Your task to perform on an android device: Go to privacy settings Image 0: 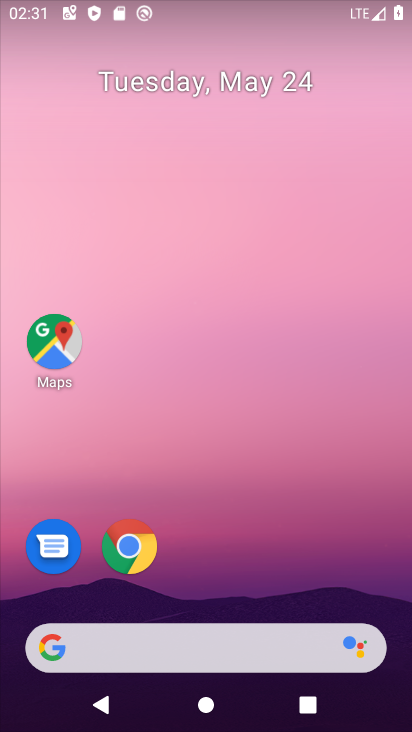
Step 0: drag from (180, 568) to (275, 185)
Your task to perform on an android device: Go to privacy settings Image 1: 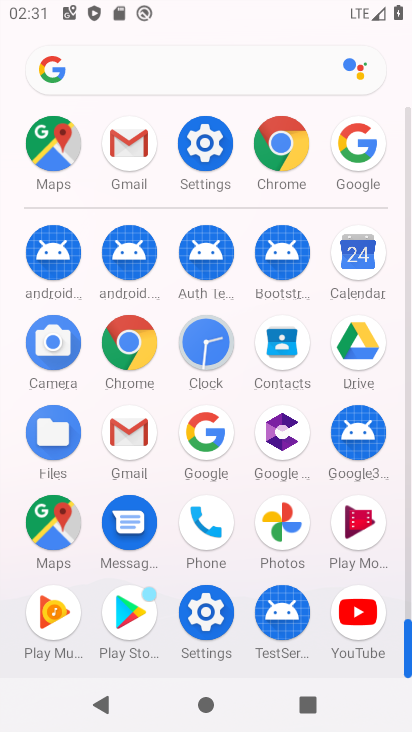
Step 1: click (203, 145)
Your task to perform on an android device: Go to privacy settings Image 2: 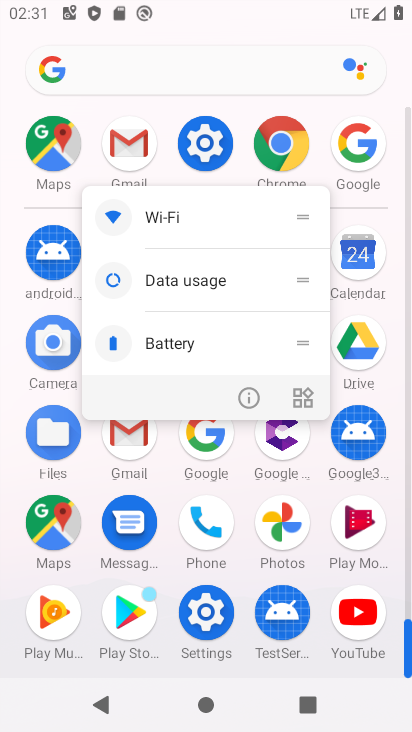
Step 2: click (244, 400)
Your task to perform on an android device: Go to privacy settings Image 3: 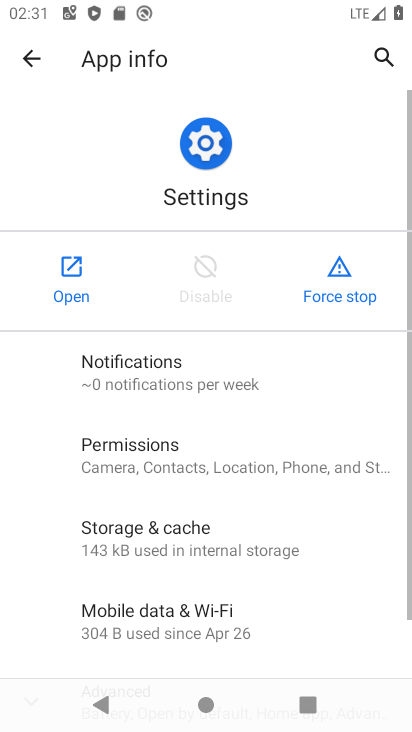
Step 3: click (55, 275)
Your task to perform on an android device: Go to privacy settings Image 4: 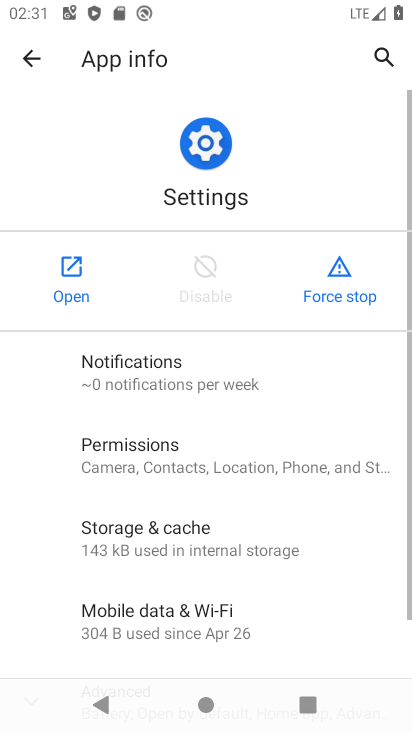
Step 4: click (54, 274)
Your task to perform on an android device: Go to privacy settings Image 5: 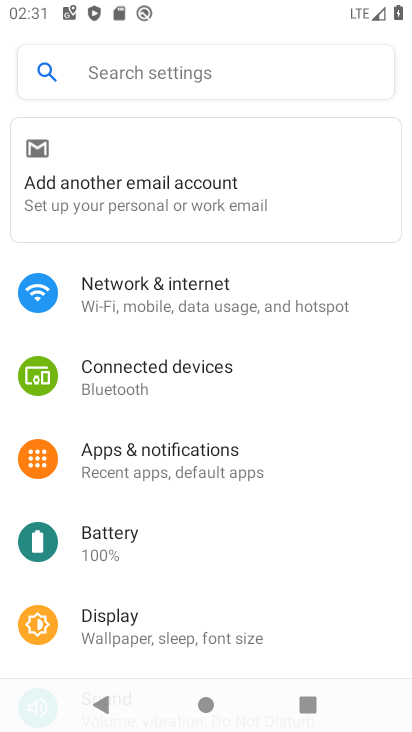
Step 5: drag from (204, 598) to (301, 169)
Your task to perform on an android device: Go to privacy settings Image 6: 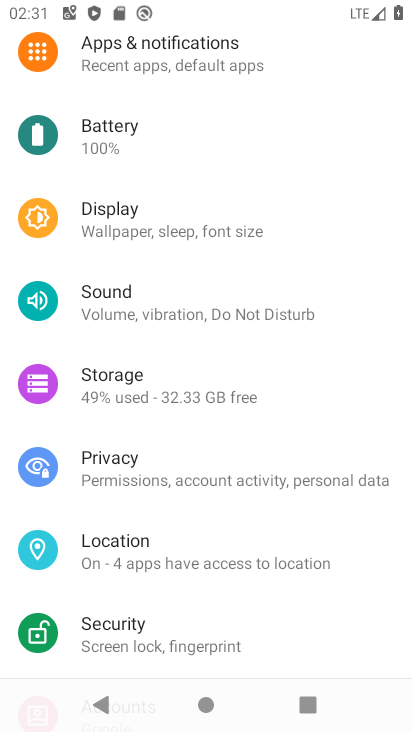
Step 6: click (142, 452)
Your task to perform on an android device: Go to privacy settings Image 7: 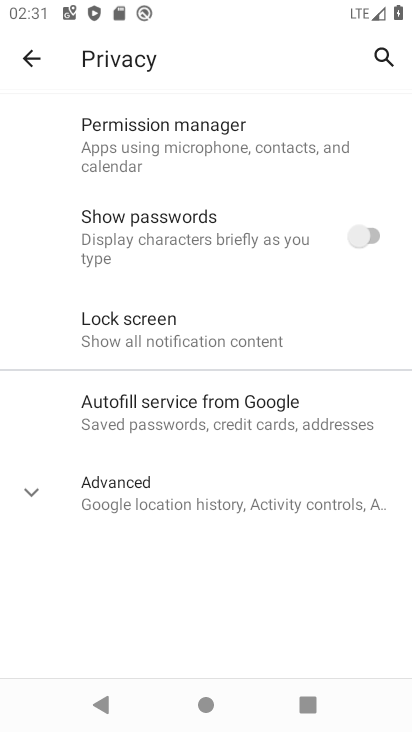
Step 7: task complete